Your task to perform on an android device: search for starred emails in the gmail app Image 0: 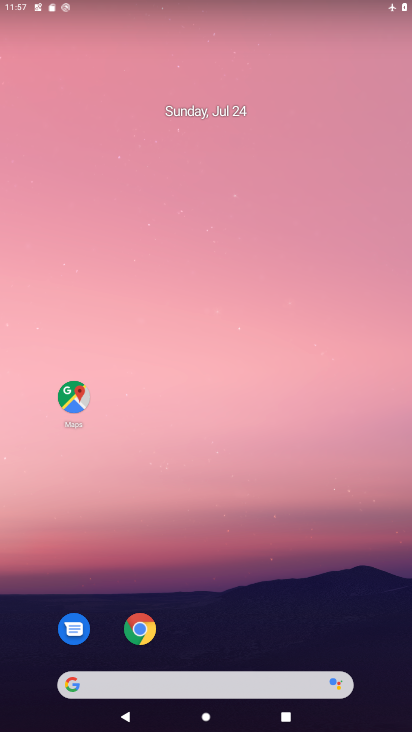
Step 0: drag from (220, 544) to (231, 10)
Your task to perform on an android device: search for starred emails in the gmail app Image 1: 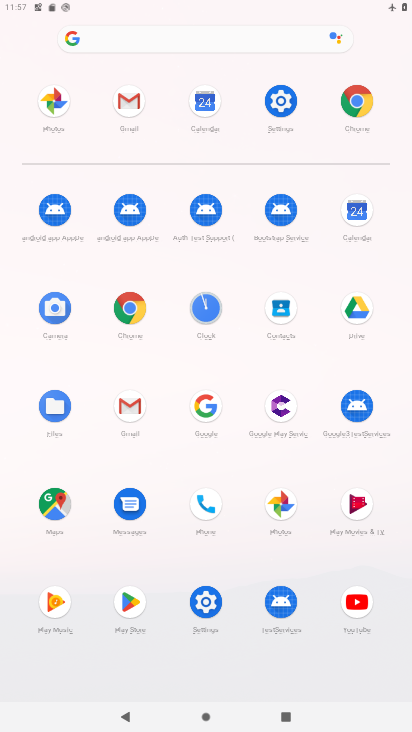
Step 1: click (138, 424)
Your task to perform on an android device: search for starred emails in the gmail app Image 2: 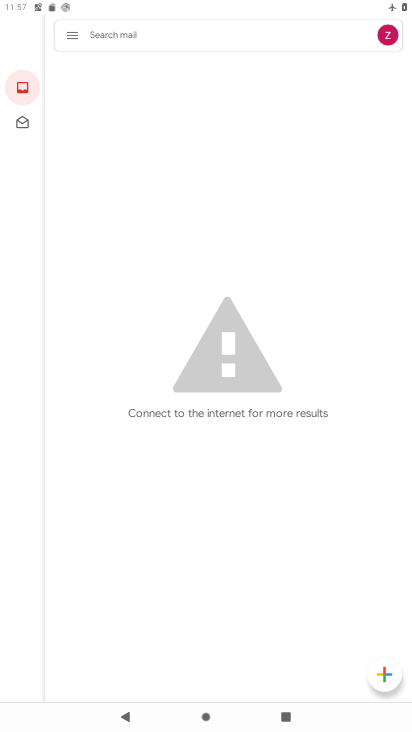
Step 2: click (66, 39)
Your task to perform on an android device: search for starred emails in the gmail app Image 3: 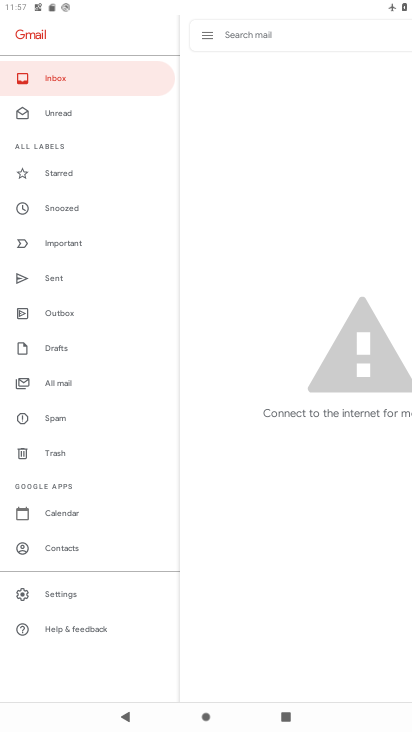
Step 3: click (63, 176)
Your task to perform on an android device: search for starred emails in the gmail app Image 4: 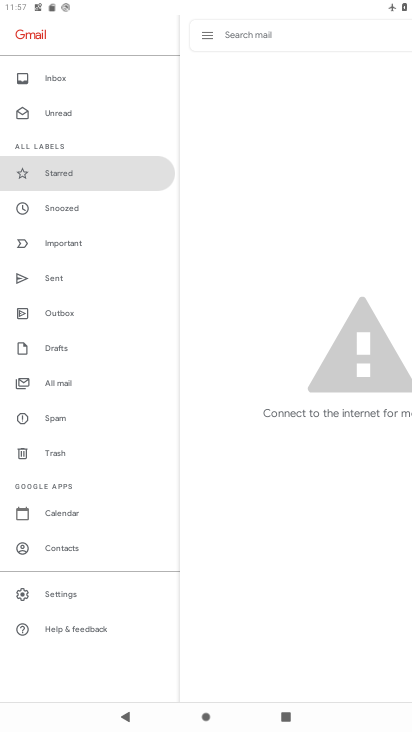
Step 4: task complete